Your task to perform on an android device: Open the Play Movies app and select the watchlist tab. Image 0: 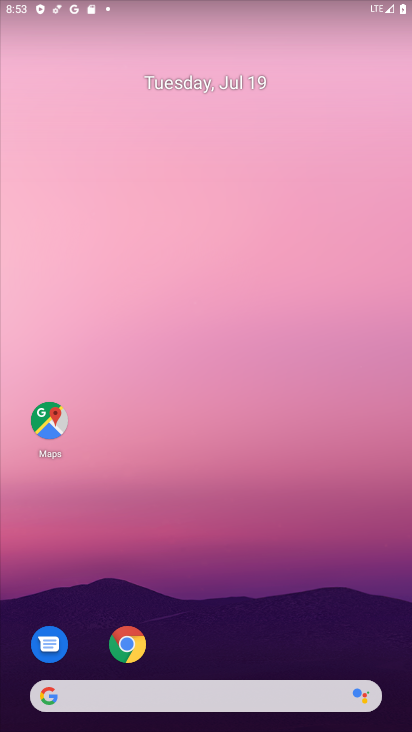
Step 0: drag from (171, 583) to (270, 70)
Your task to perform on an android device: Open the Play Movies app and select the watchlist tab. Image 1: 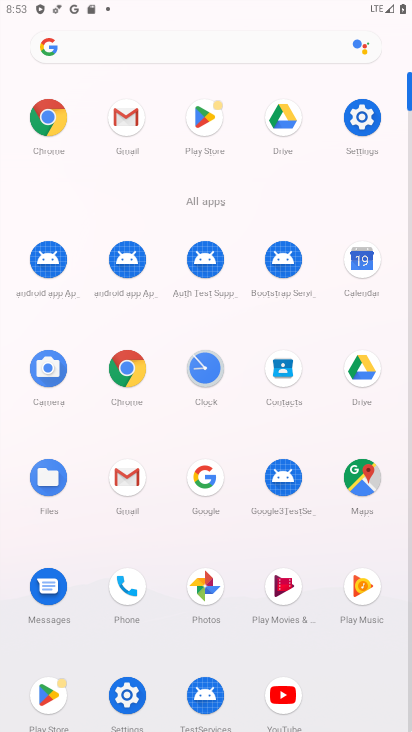
Step 1: click (272, 594)
Your task to perform on an android device: Open the Play Movies app and select the watchlist tab. Image 2: 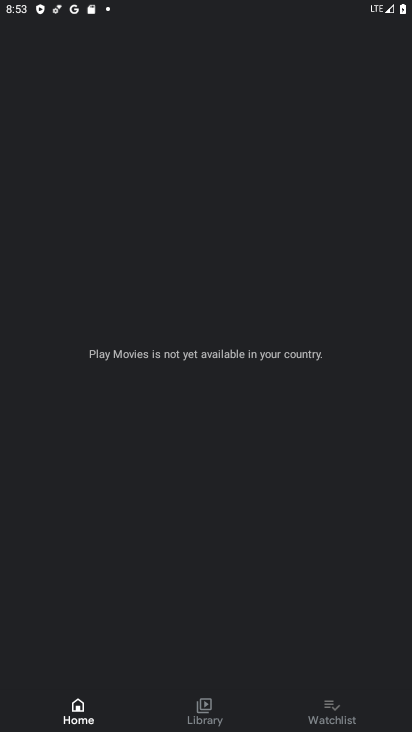
Step 2: click (335, 716)
Your task to perform on an android device: Open the Play Movies app and select the watchlist tab. Image 3: 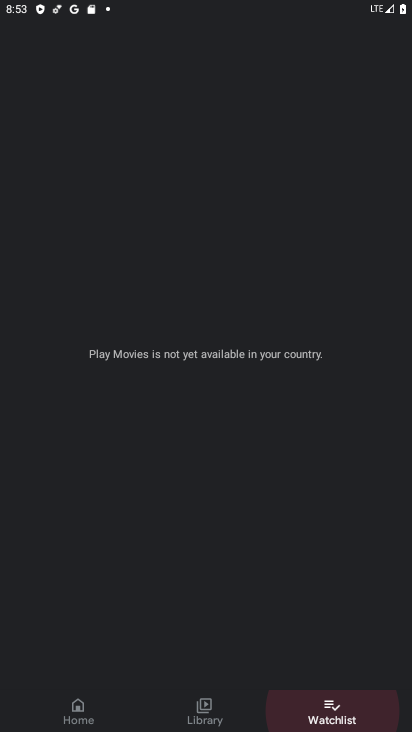
Step 3: click (335, 716)
Your task to perform on an android device: Open the Play Movies app and select the watchlist tab. Image 4: 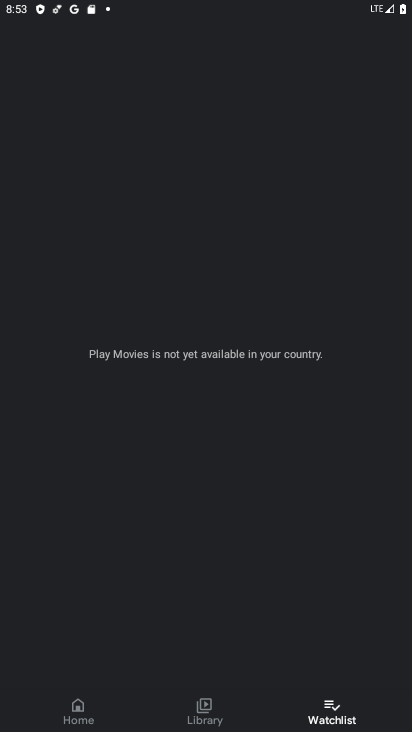
Step 4: task complete